Your task to perform on an android device: Show the shopping cart on ebay.com. Search for "bose quietcomfort 35" on ebay.com, select the first entry, add it to the cart, then select checkout. Image 0: 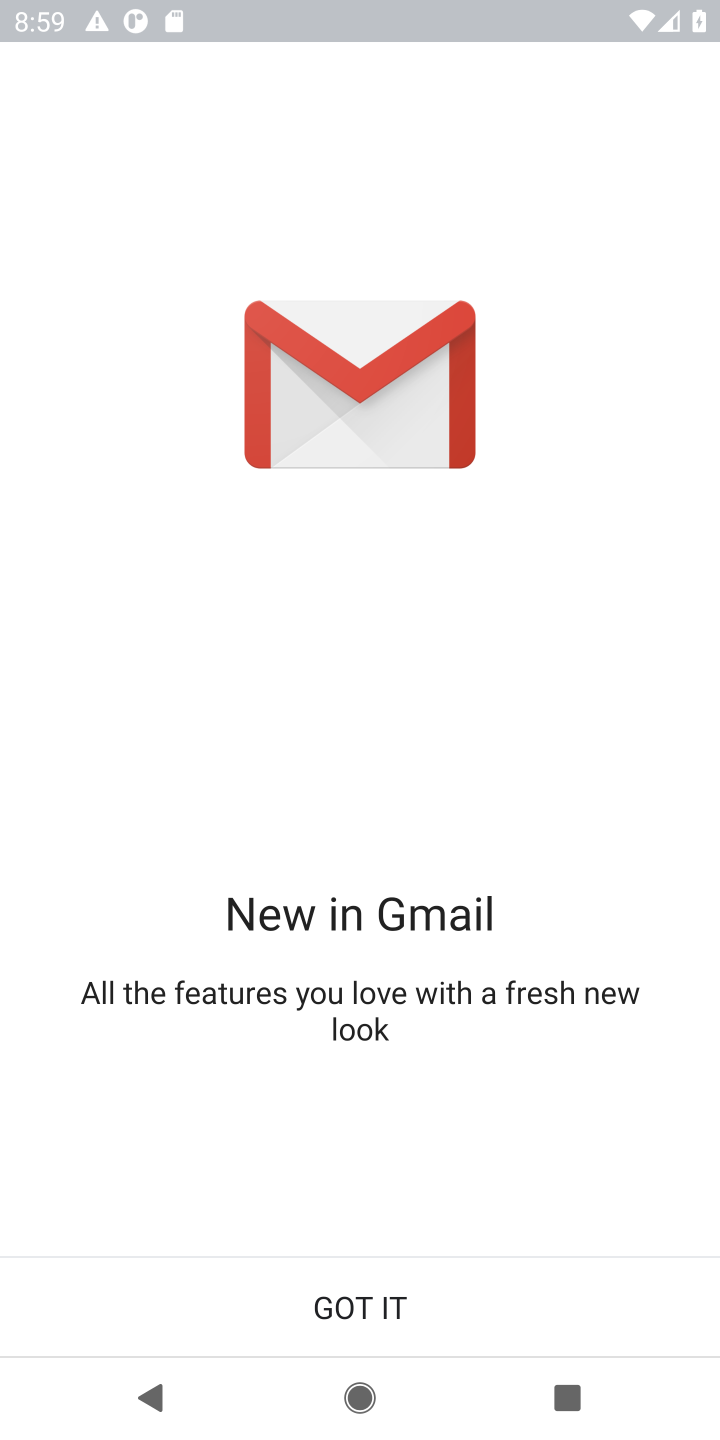
Step 0: press home button
Your task to perform on an android device: Show the shopping cart on ebay.com. Search for "bose quietcomfort 35" on ebay.com, select the first entry, add it to the cart, then select checkout. Image 1: 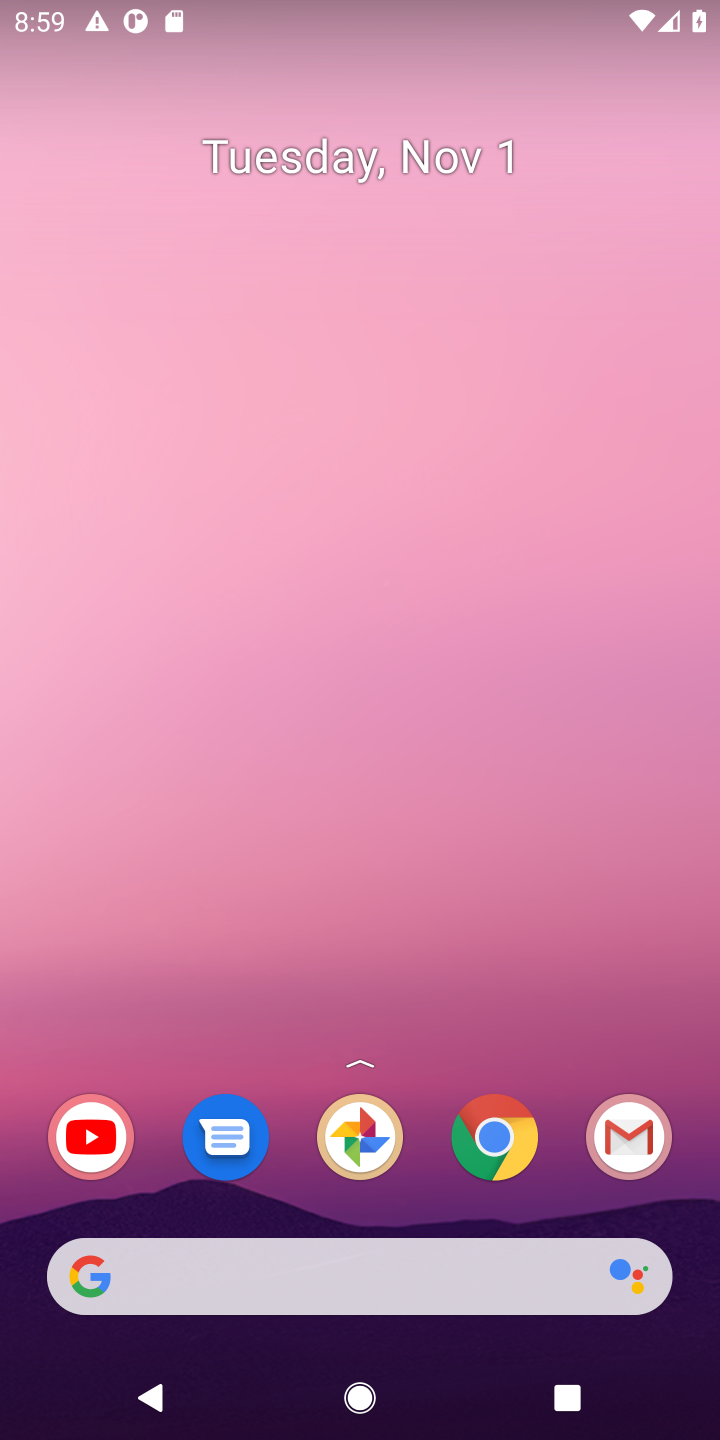
Step 1: click (307, 1292)
Your task to perform on an android device: Show the shopping cart on ebay.com. Search for "bose quietcomfort 35" on ebay.com, select the first entry, add it to the cart, then select checkout. Image 2: 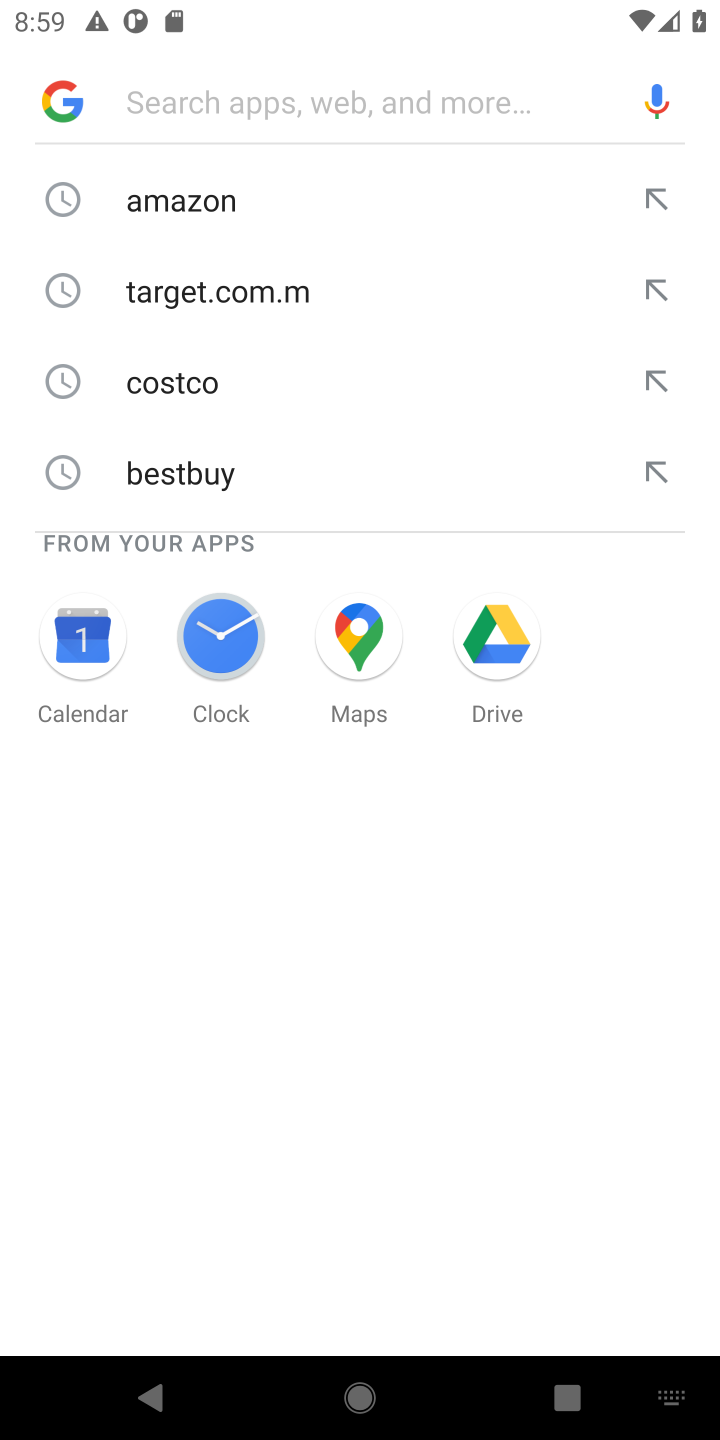
Step 2: type " ebay.com."
Your task to perform on an android device: Show the shopping cart on ebay.com. Search for "bose quietcomfort 35" on ebay.com, select the first entry, add it to the cart, then select checkout. Image 3: 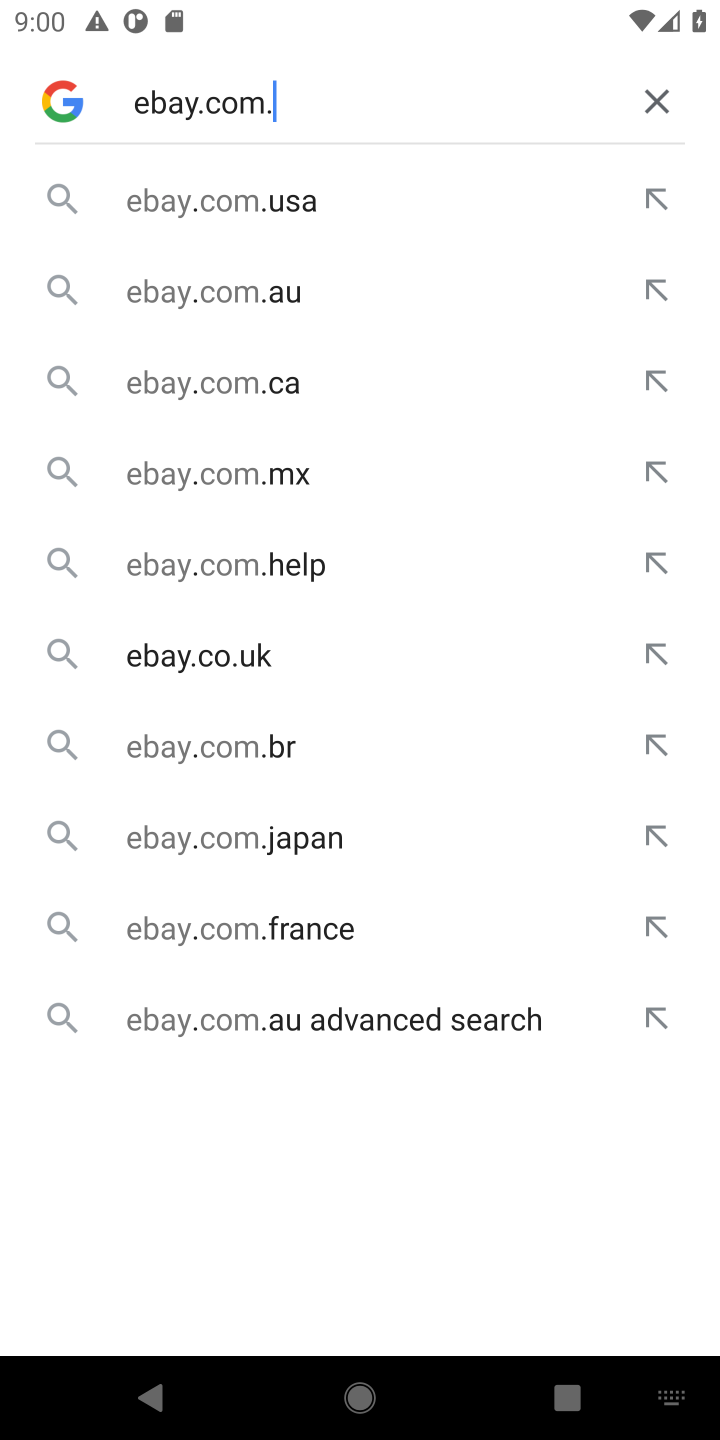
Step 3: click (287, 200)
Your task to perform on an android device: Show the shopping cart on ebay.com. Search for "bose quietcomfort 35" on ebay.com, select the first entry, add it to the cart, then select checkout. Image 4: 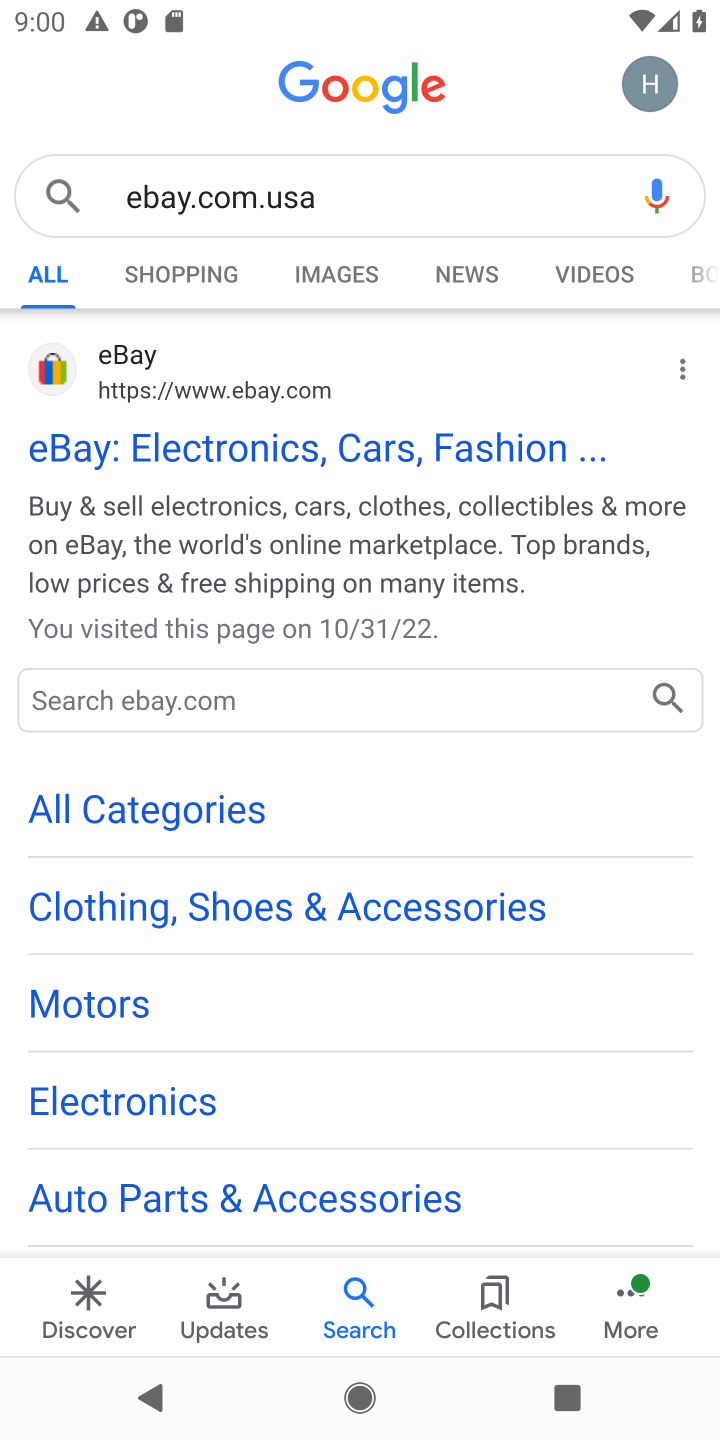
Step 4: click (137, 349)
Your task to perform on an android device: Show the shopping cart on ebay.com. Search for "bose quietcomfort 35" on ebay.com, select the first entry, add it to the cart, then select checkout. Image 5: 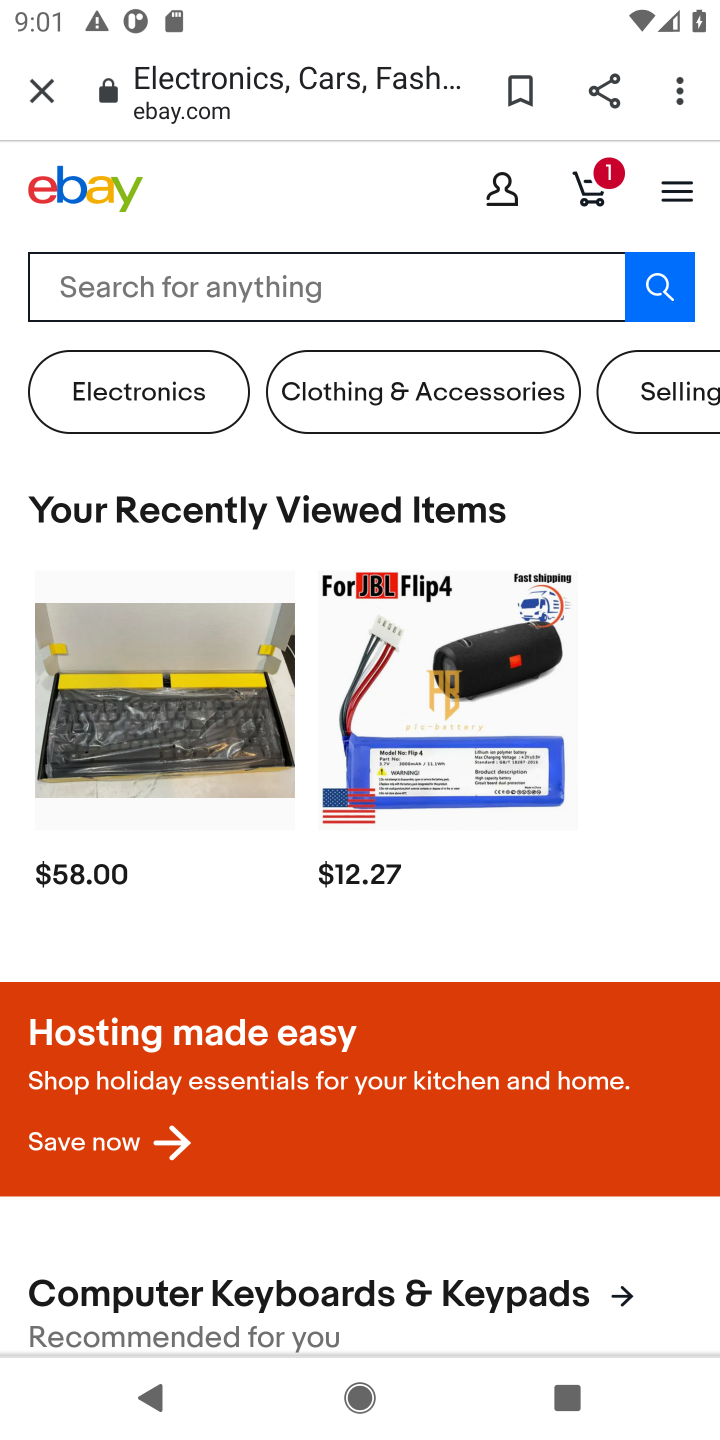
Step 5: click (304, 290)
Your task to perform on an android device: Show the shopping cart on ebay.com. Search for "bose quietcomfort 35" on ebay.com, select the first entry, add it to the cart, then select checkout. Image 6: 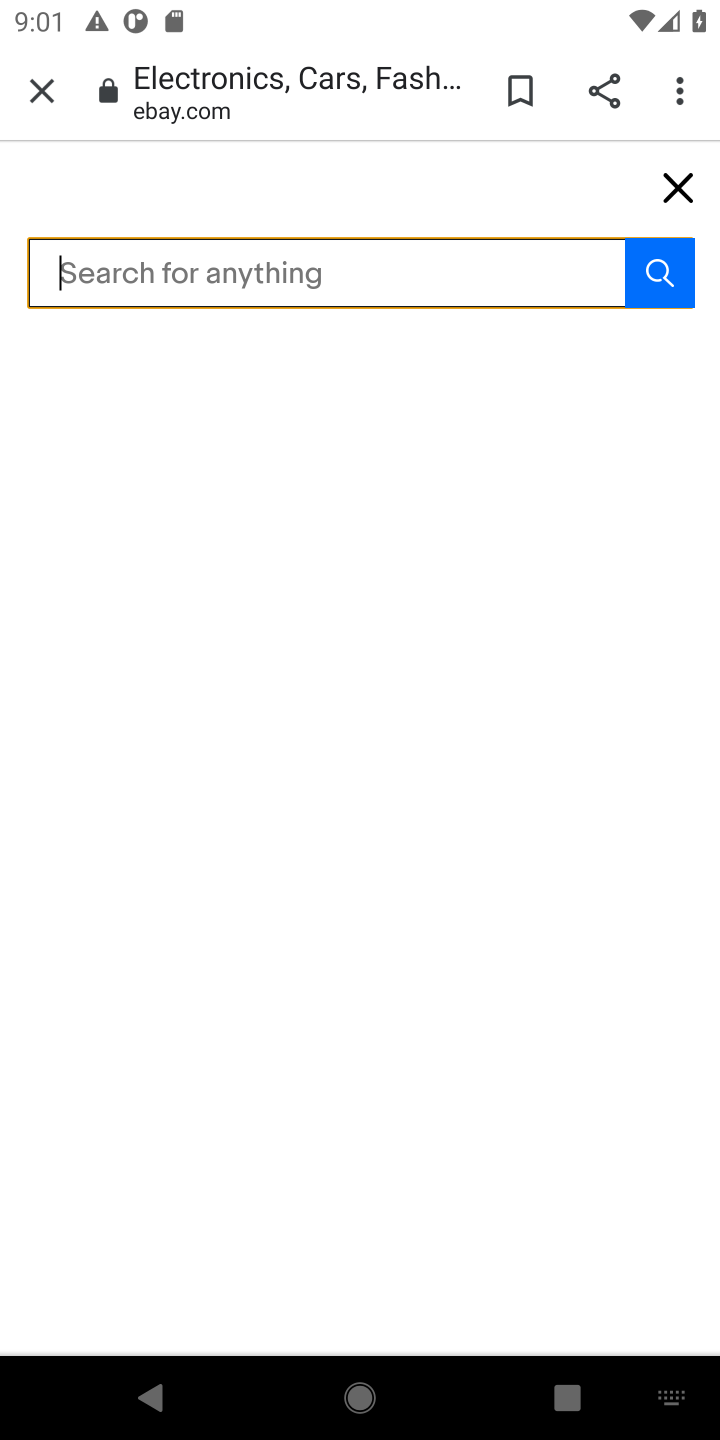
Step 6: type "bose quietcomfort 35"
Your task to perform on an android device: Show the shopping cart on ebay.com. Search for "bose quietcomfort 35" on ebay.com, select the first entry, add it to the cart, then select checkout. Image 7: 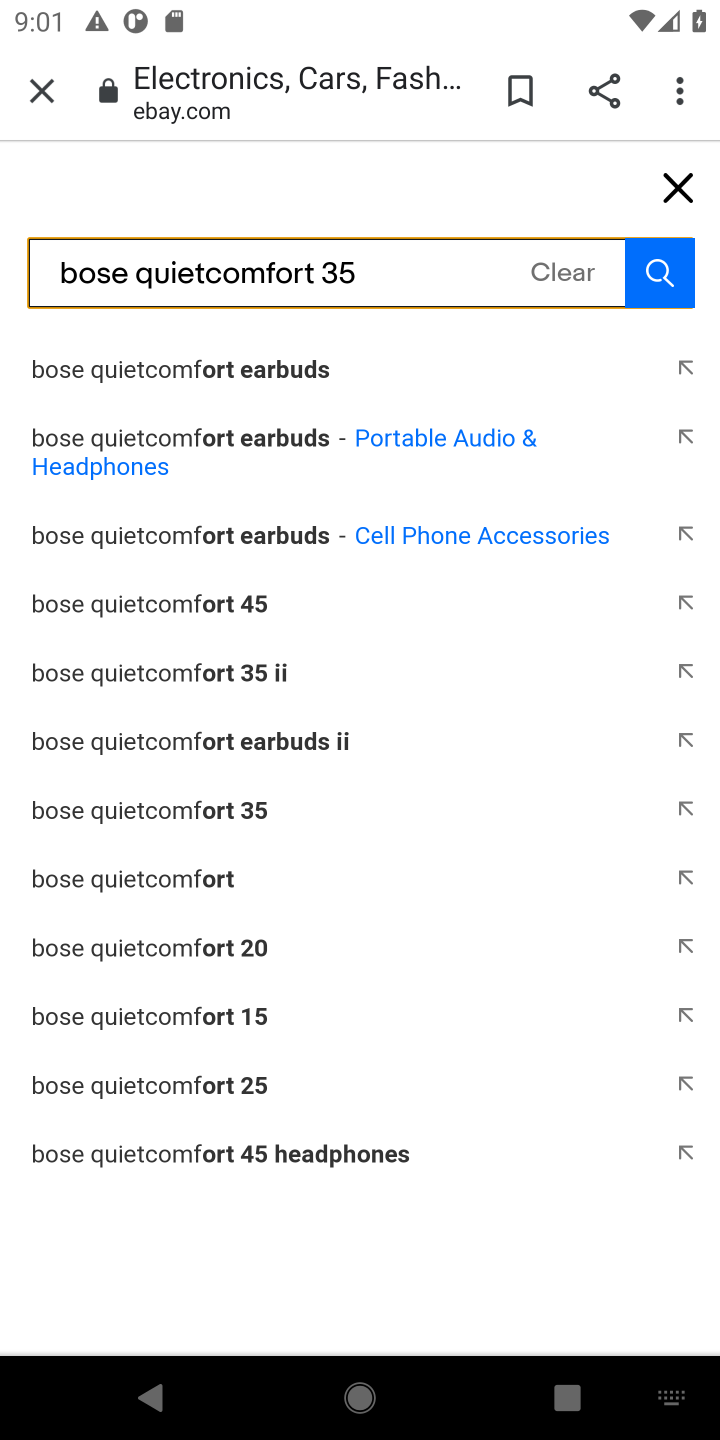
Step 7: click (164, 372)
Your task to perform on an android device: Show the shopping cart on ebay.com. Search for "bose quietcomfort 35" on ebay.com, select the first entry, add it to the cart, then select checkout. Image 8: 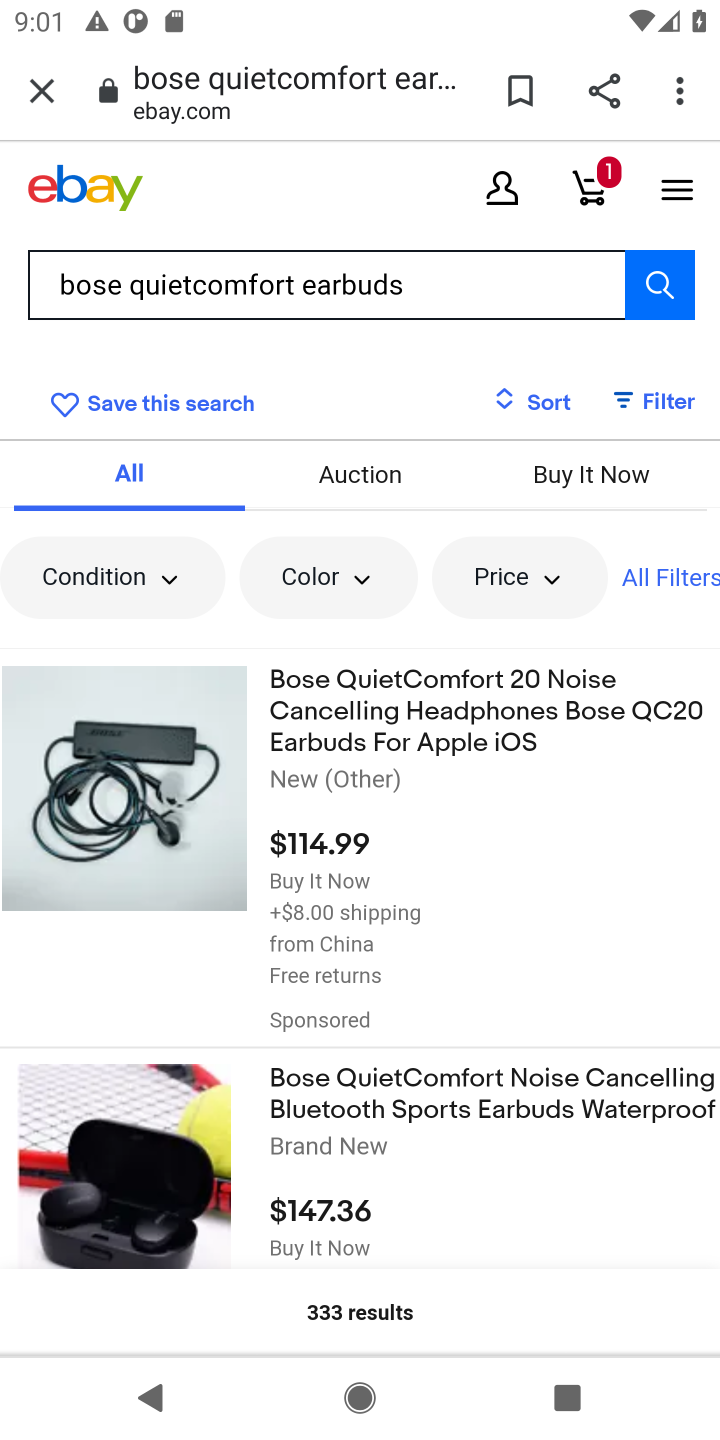
Step 8: click (312, 752)
Your task to perform on an android device: Show the shopping cart on ebay.com. Search for "bose quietcomfort 35" on ebay.com, select the first entry, add it to the cart, then select checkout. Image 9: 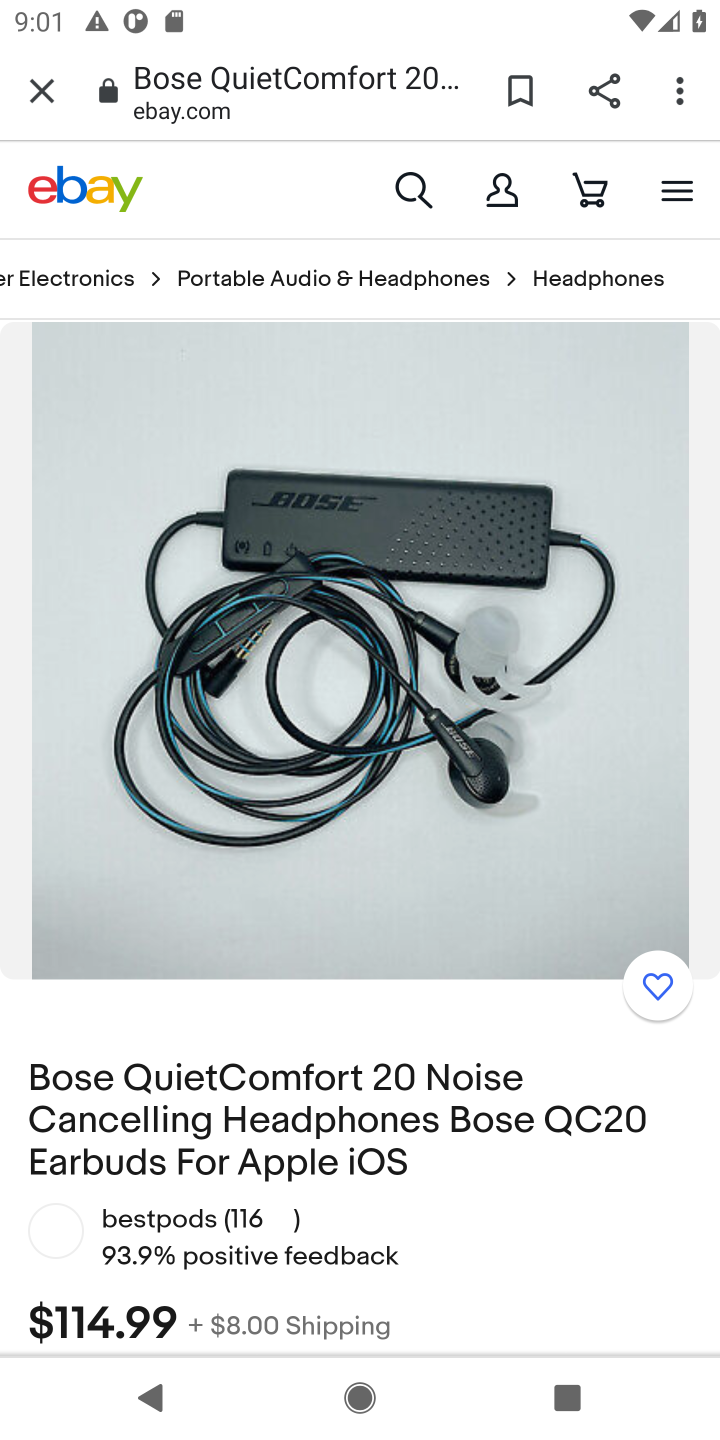
Step 9: drag from (365, 1039) to (346, 812)
Your task to perform on an android device: Show the shopping cart on ebay.com. Search for "bose quietcomfort 35" on ebay.com, select the first entry, add it to the cart, then select checkout. Image 10: 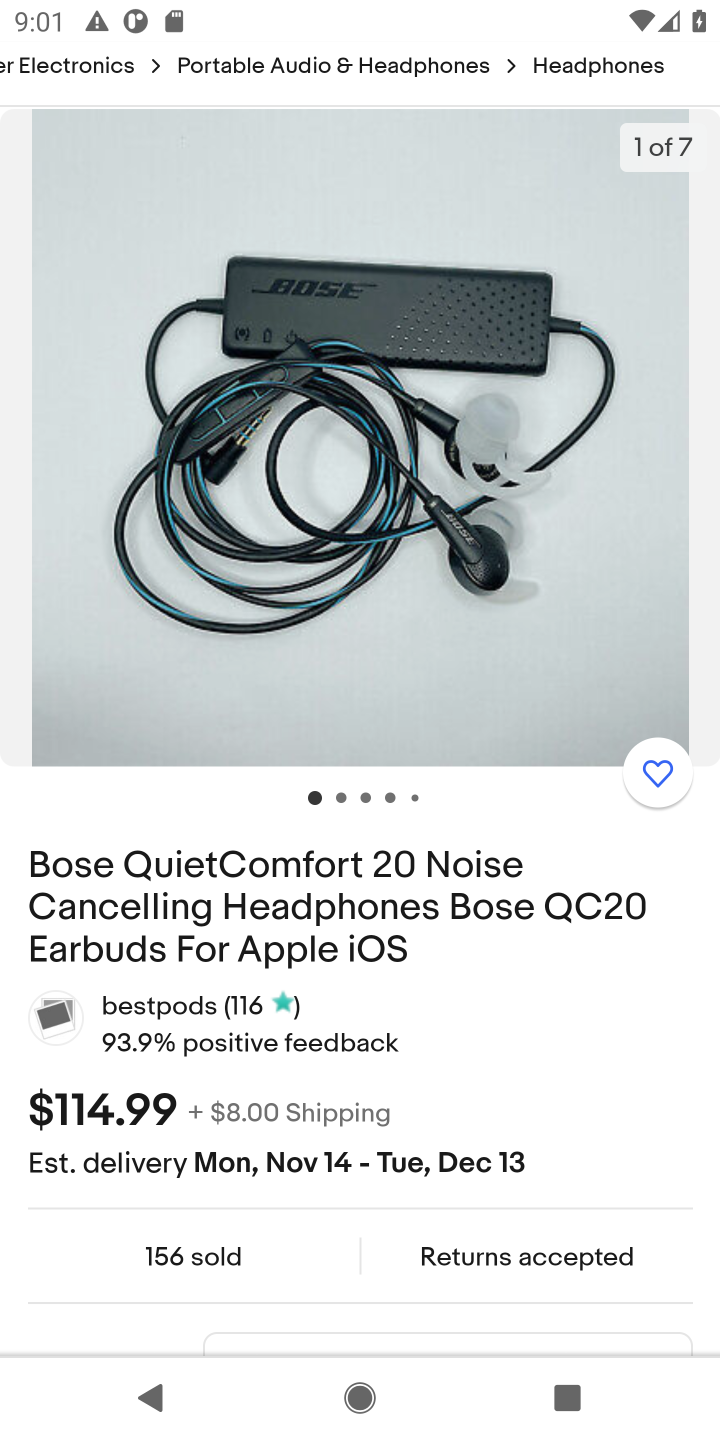
Step 10: drag from (445, 848) to (443, 505)
Your task to perform on an android device: Show the shopping cart on ebay.com. Search for "bose quietcomfort 35" on ebay.com, select the first entry, add it to the cart, then select checkout. Image 11: 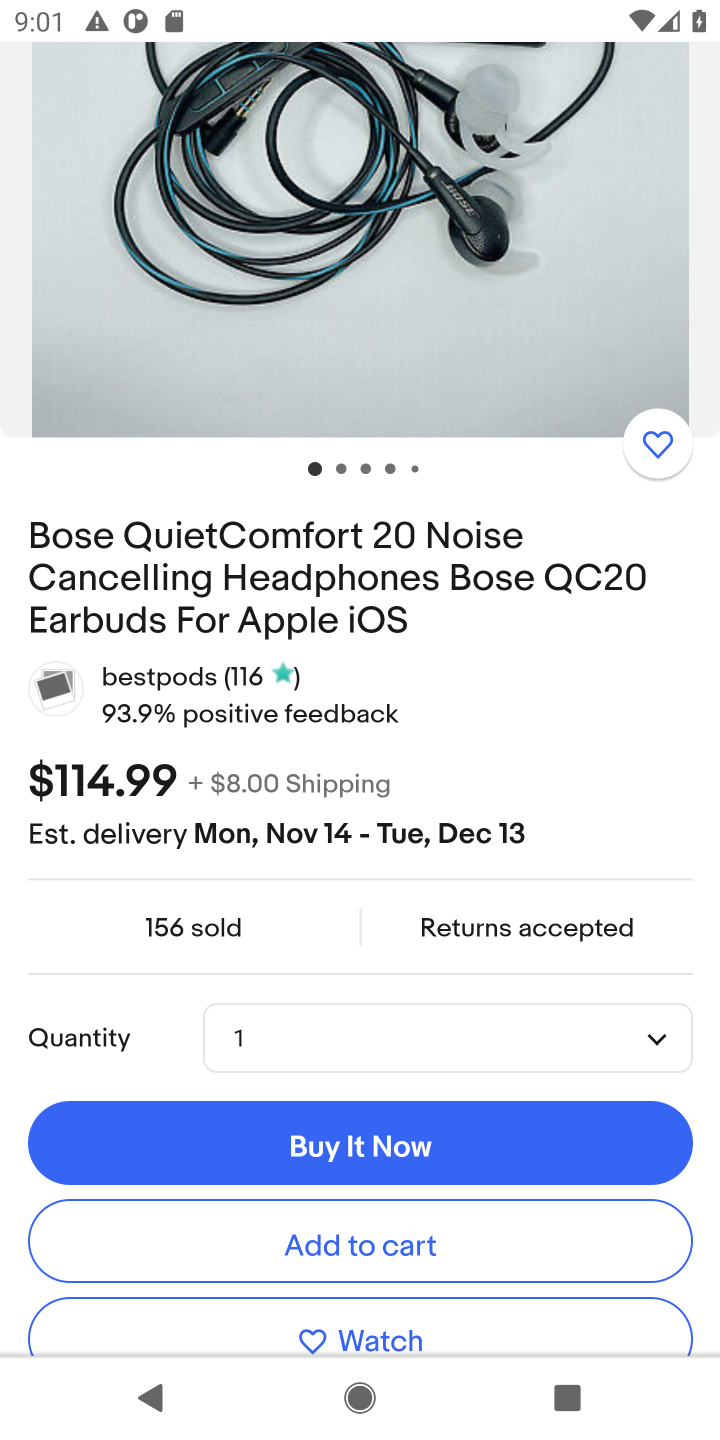
Step 11: click (326, 1238)
Your task to perform on an android device: Show the shopping cart on ebay.com. Search for "bose quietcomfort 35" on ebay.com, select the first entry, add it to the cart, then select checkout. Image 12: 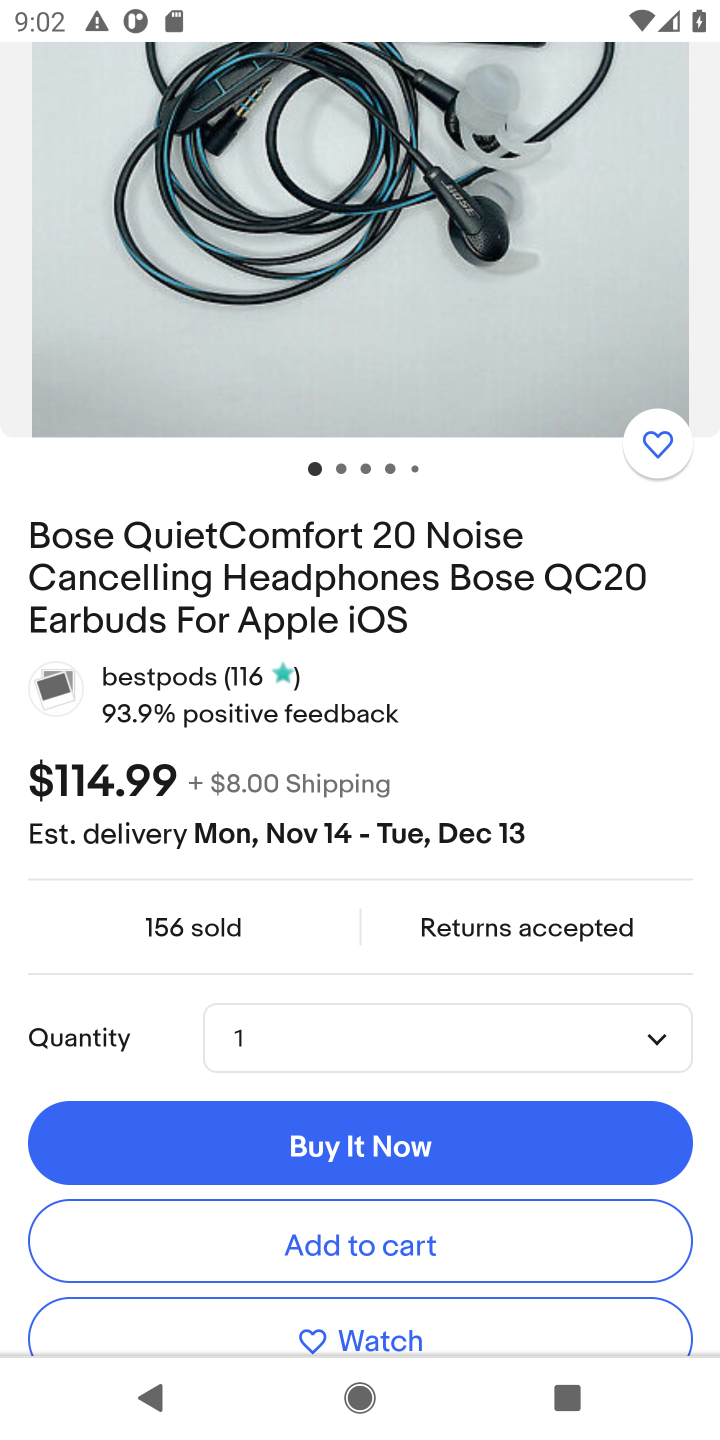
Step 12: click (526, 1237)
Your task to perform on an android device: Show the shopping cart on ebay.com. Search for "bose quietcomfort 35" on ebay.com, select the first entry, add it to the cart, then select checkout. Image 13: 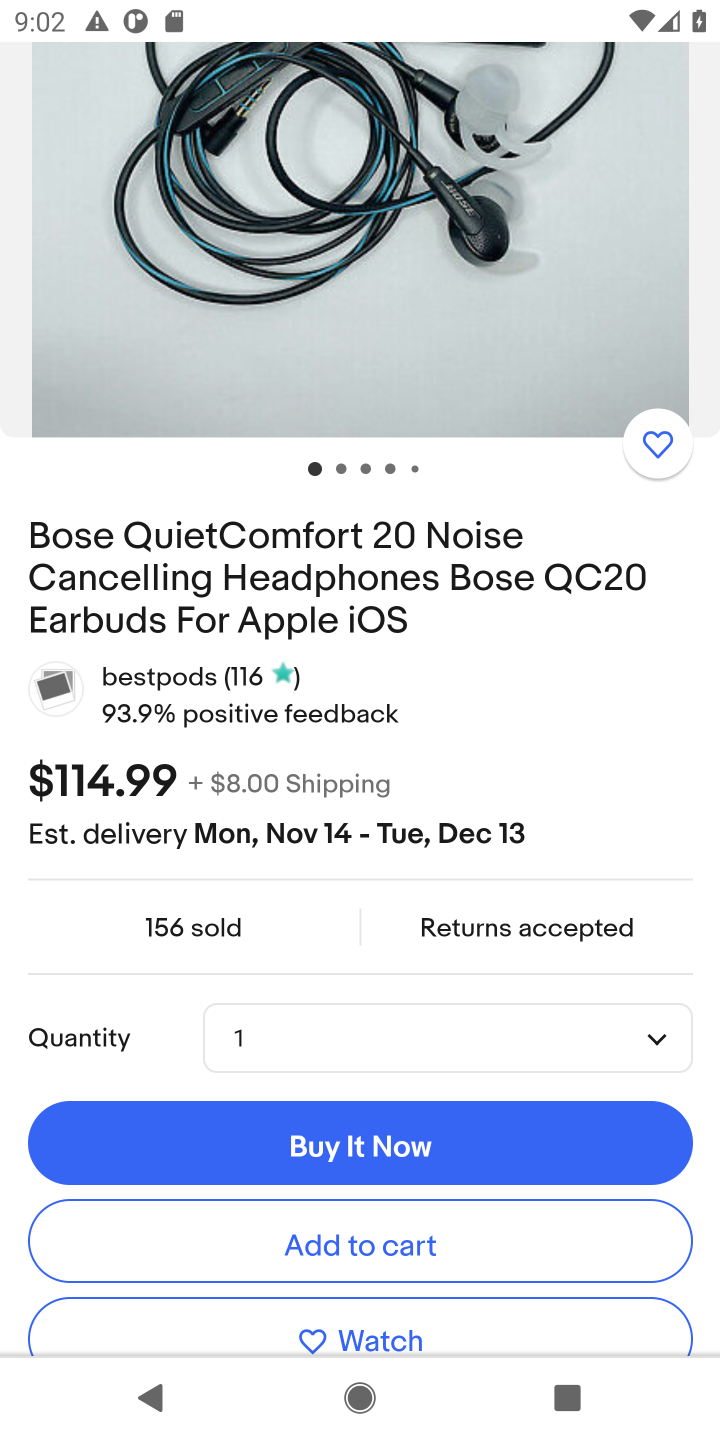
Step 13: click (585, 1361)
Your task to perform on an android device: Show the shopping cart on ebay.com. Search for "bose quietcomfort 35" on ebay.com, select the first entry, add it to the cart, then select checkout. Image 14: 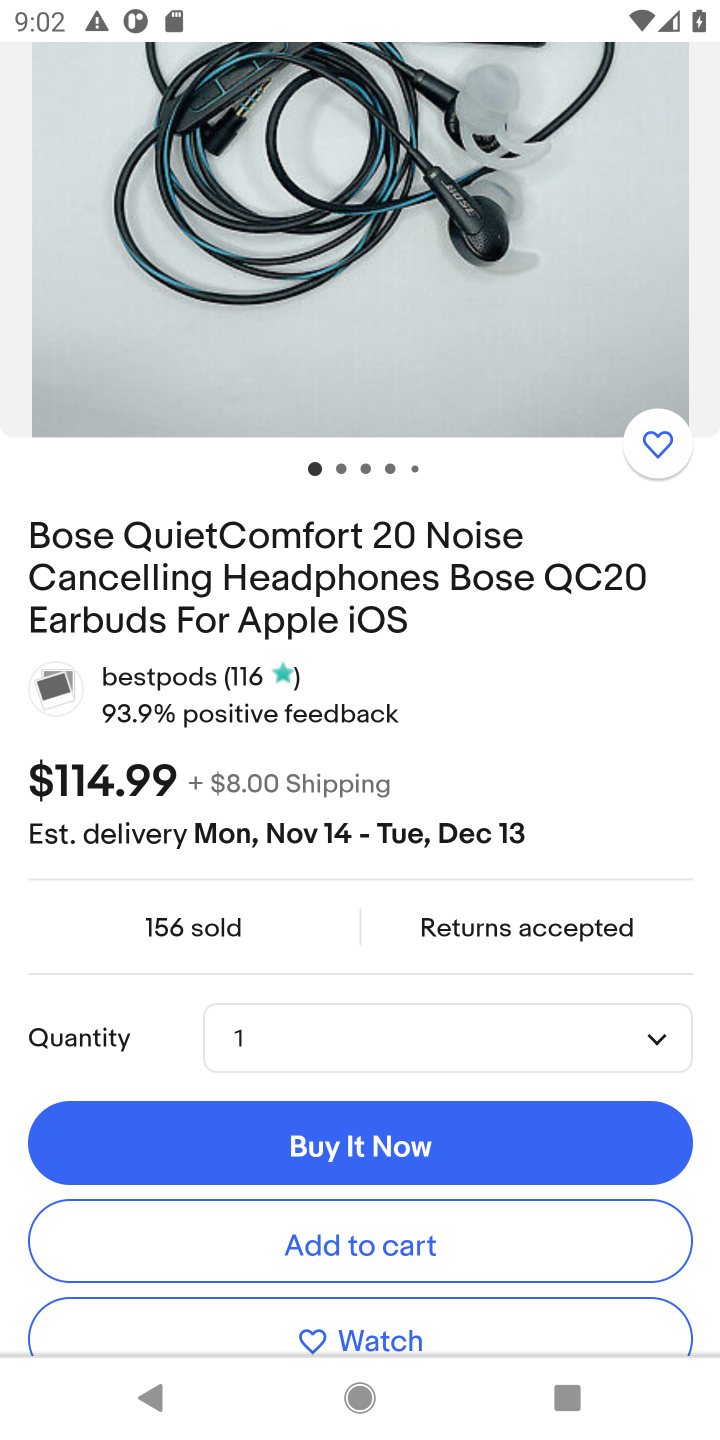
Step 14: drag from (575, 844) to (579, 1205)
Your task to perform on an android device: Show the shopping cart on ebay.com. Search for "bose quietcomfort 35" on ebay.com, select the first entry, add it to the cart, then select checkout. Image 15: 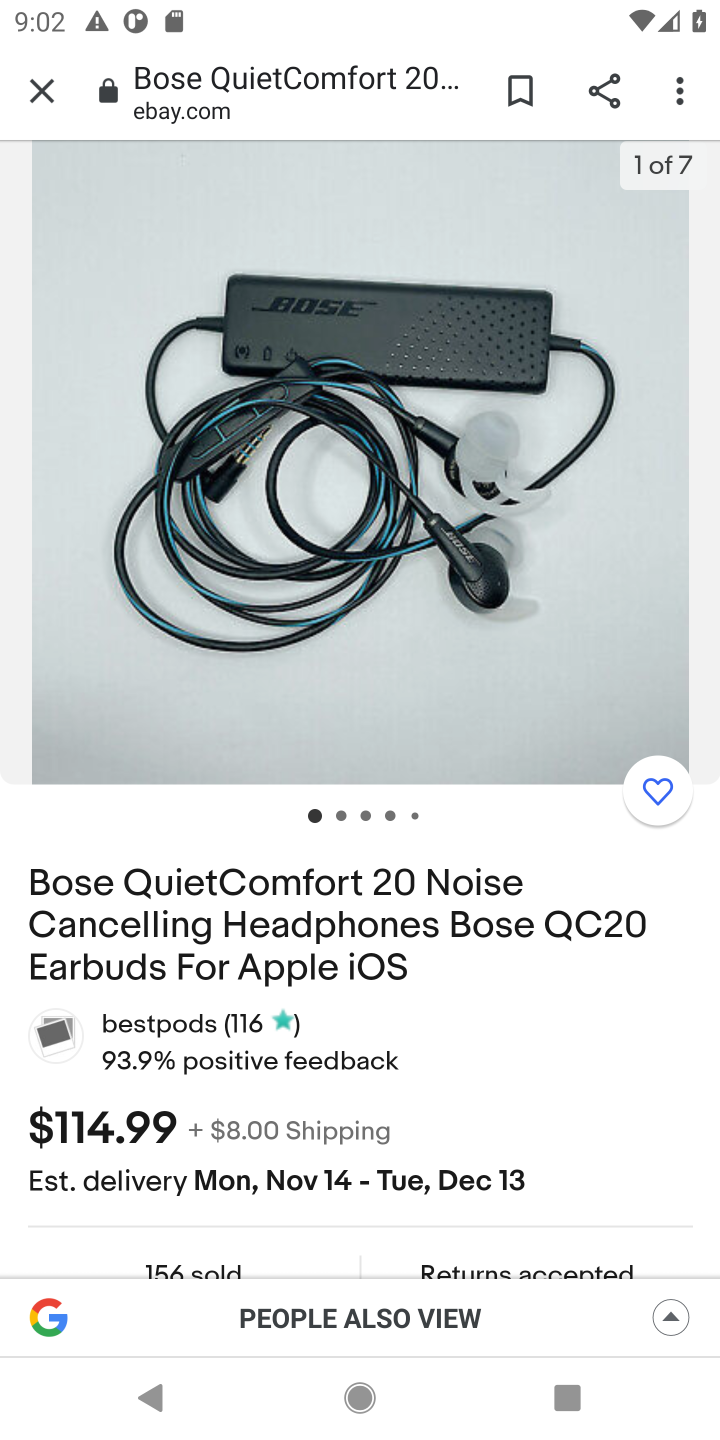
Step 15: drag from (524, 668) to (513, 1090)
Your task to perform on an android device: Show the shopping cart on ebay.com. Search for "bose quietcomfort 35" on ebay.com, select the first entry, add it to the cart, then select checkout. Image 16: 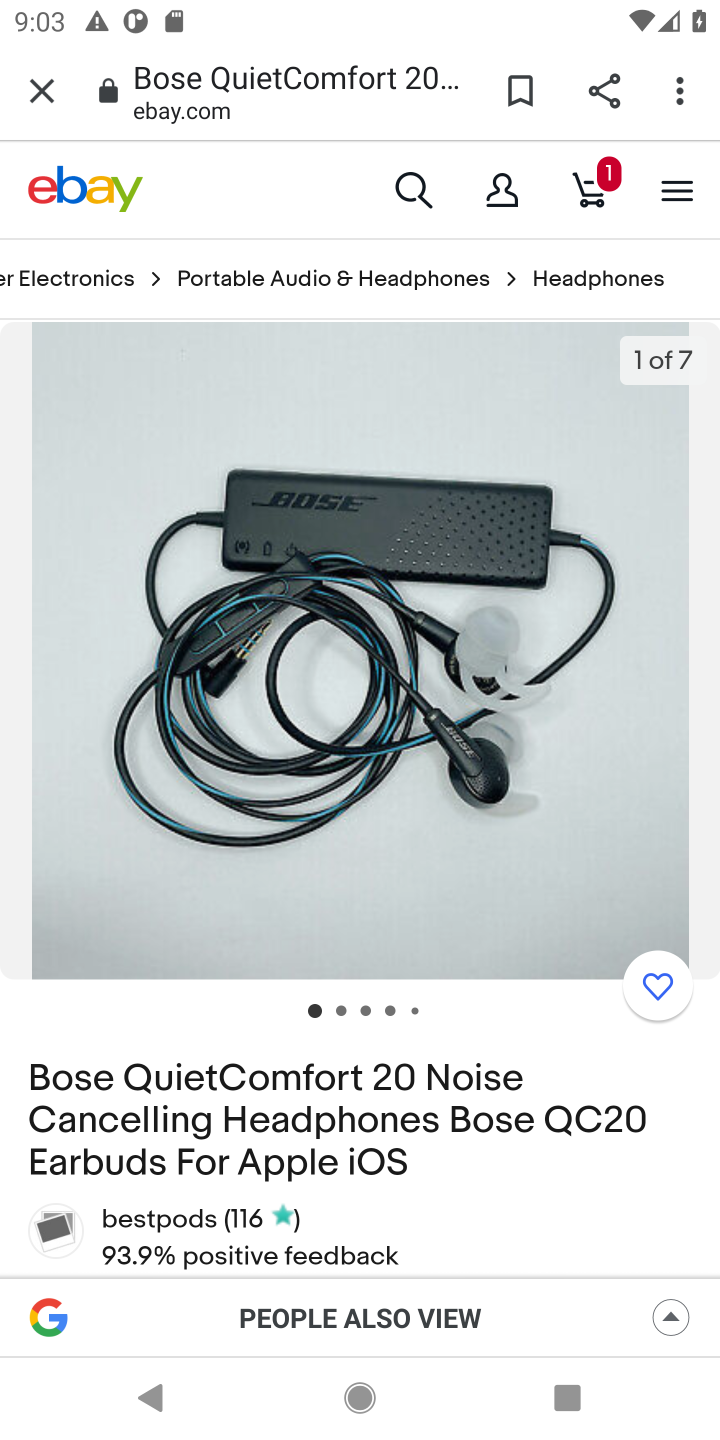
Step 16: click (602, 195)
Your task to perform on an android device: Show the shopping cart on ebay.com. Search for "bose quietcomfort 35" on ebay.com, select the first entry, add it to the cart, then select checkout. Image 17: 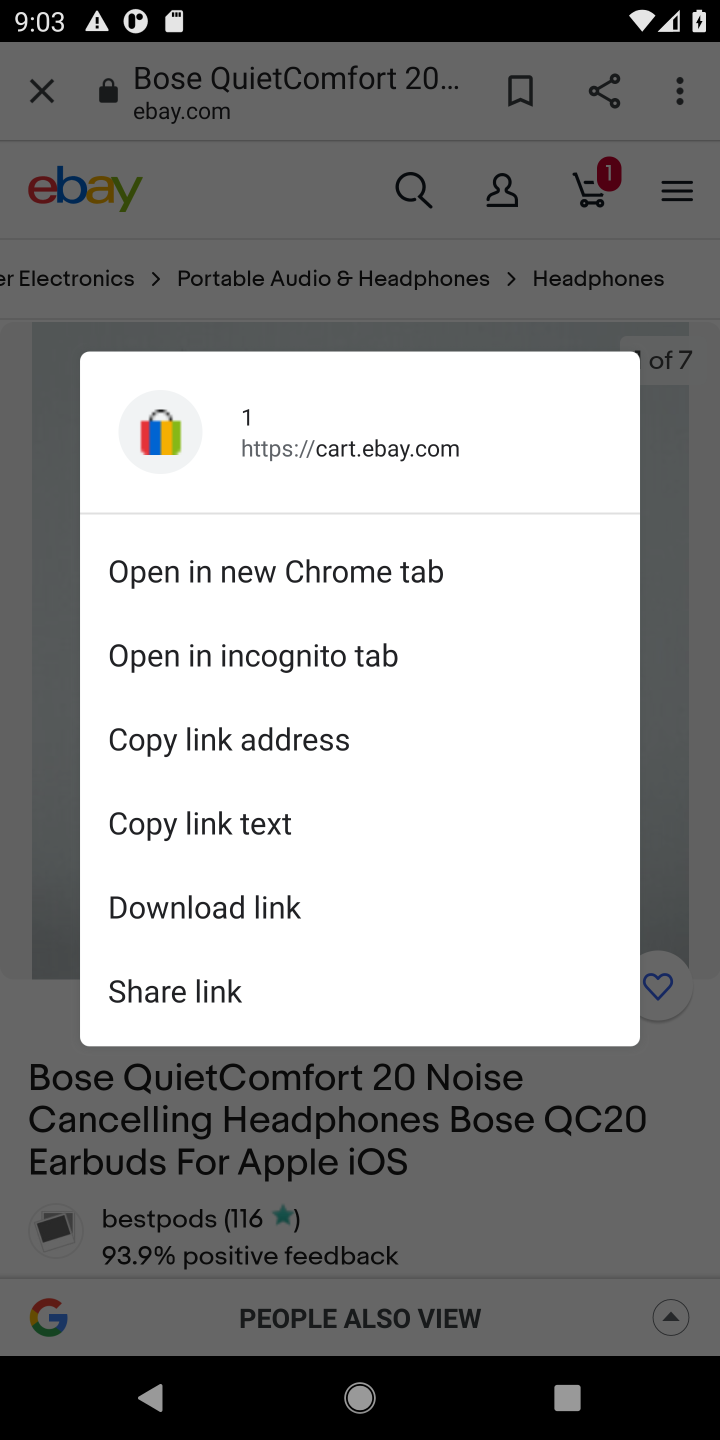
Step 17: click (362, 193)
Your task to perform on an android device: Show the shopping cart on ebay.com. Search for "bose quietcomfort 35" on ebay.com, select the first entry, add it to the cart, then select checkout. Image 18: 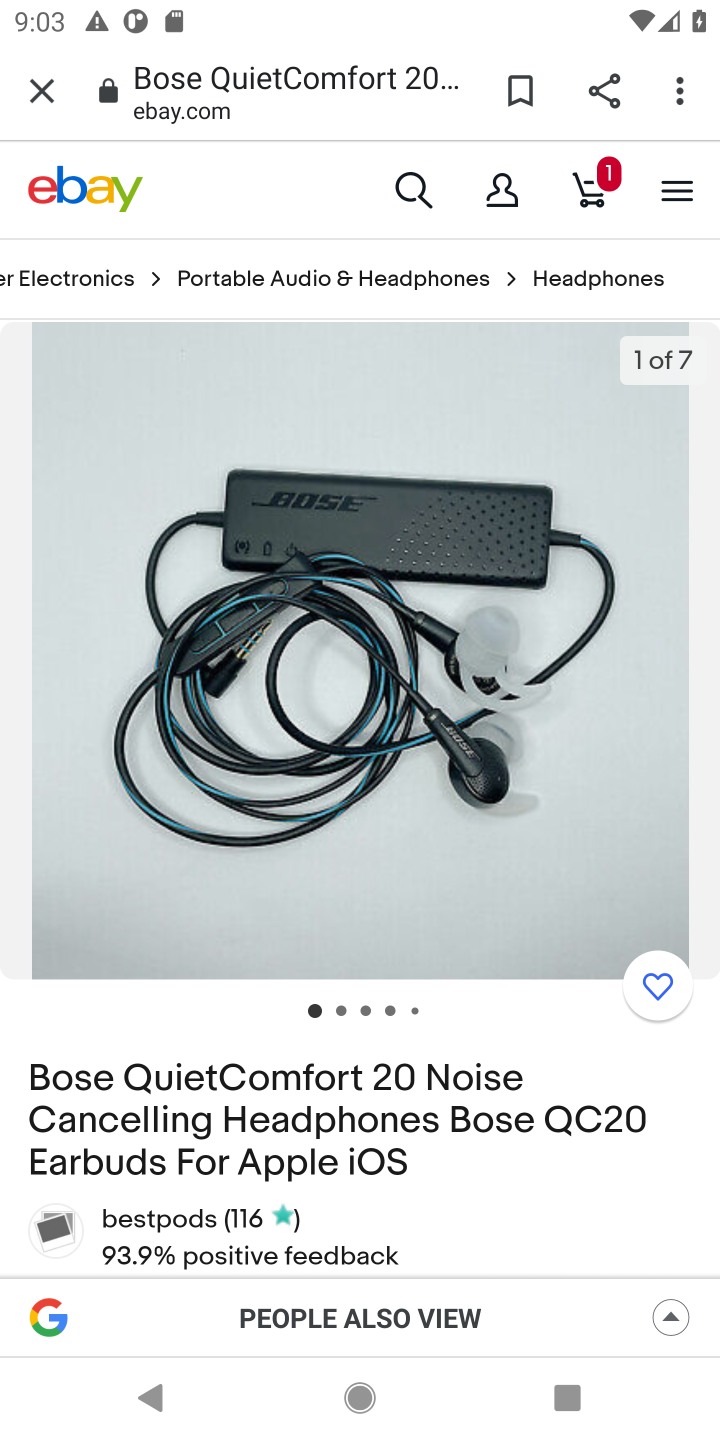
Step 18: click (578, 206)
Your task to perform on an android device: Show the shopping cart on ebay.com. Search for "bose quietcomfort 35" on ebay.com, select the first entry, add it to the cart, then select checkout. Image 19: 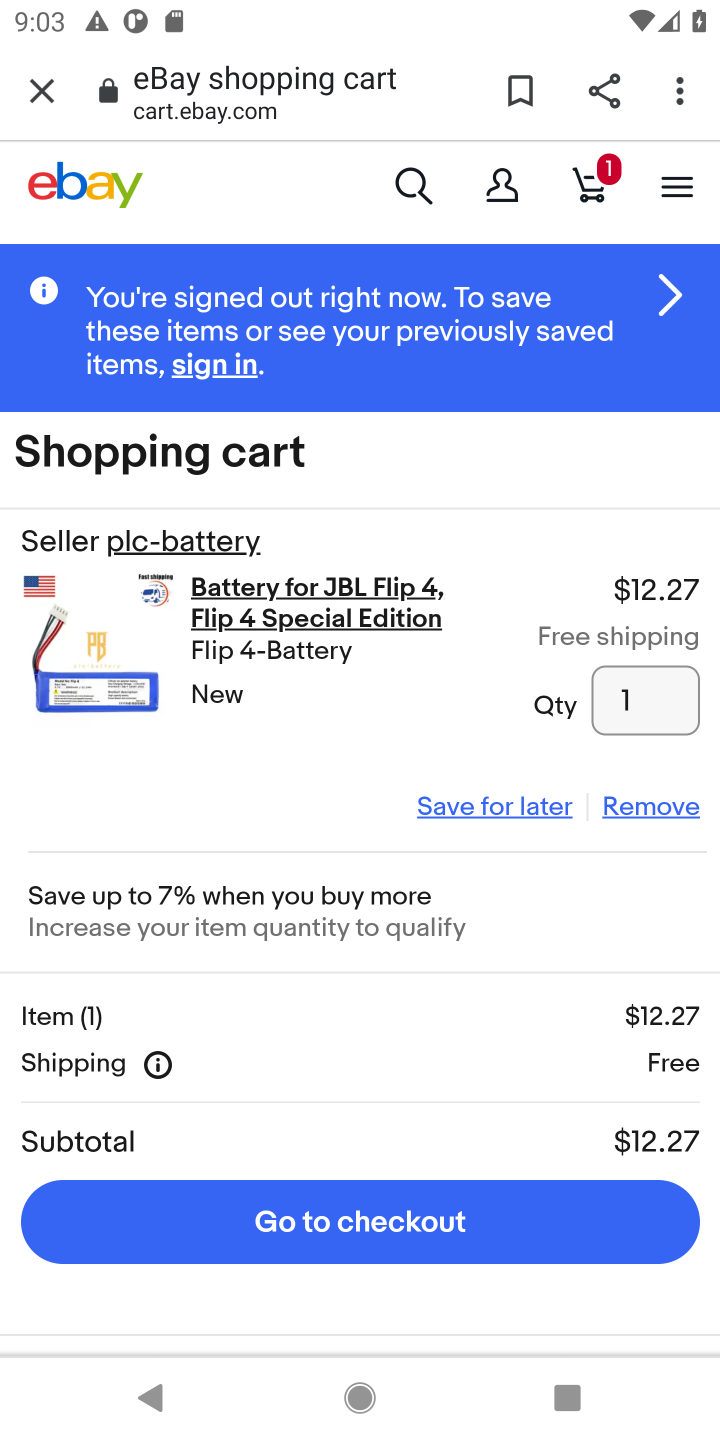
Step 19: click (326, 1217)
Your task to perform on an android device: Show the shopping cart on ebay.com. Search for "bose quietcomfort 35" on ebay.com, select the first entry, add it to the cart, then select checkout. Image 20: 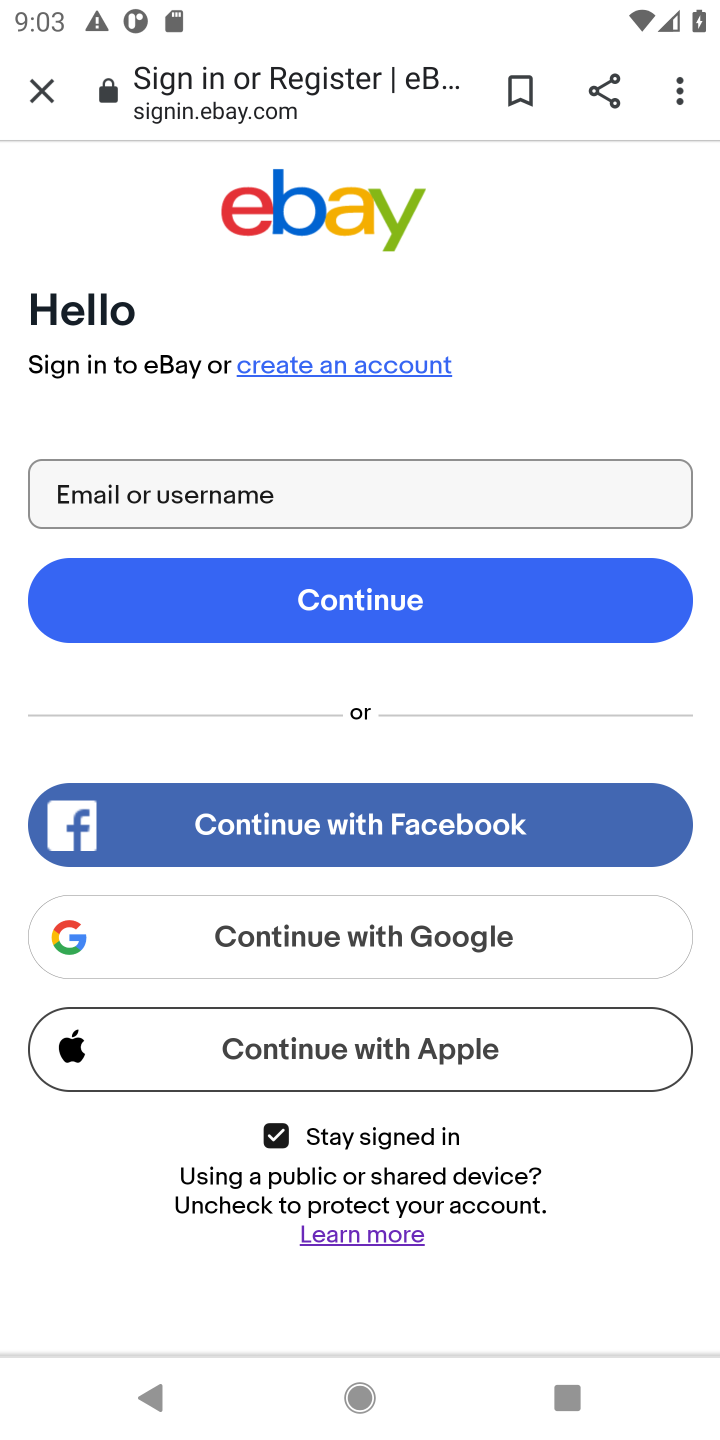
Step 20: task complete